Your task to perform on an android device: turn on priority inbox in the gmail app Image 0: 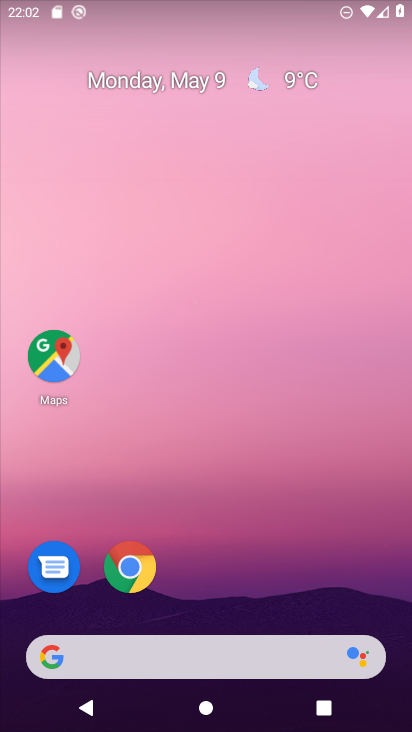
Step 0: drag from (257, 538) to (223, 39)
Your task to perform on an android device: turn on priority inbox in the gmail app Image 1: 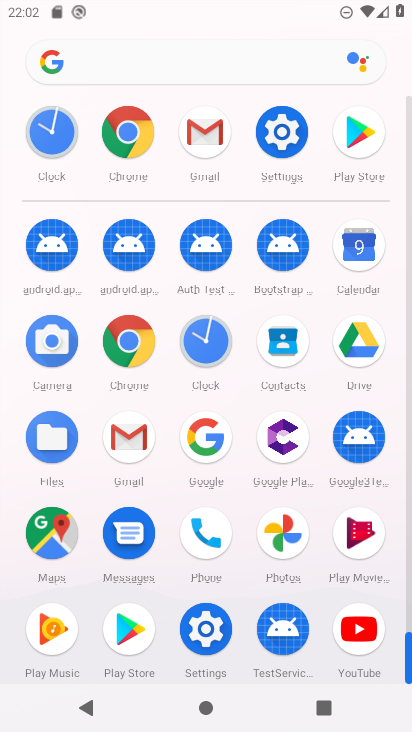
Step 1: click (216, 138)
Your task to perform on an android device: turn on priority inbox in the gmail app Image 2: 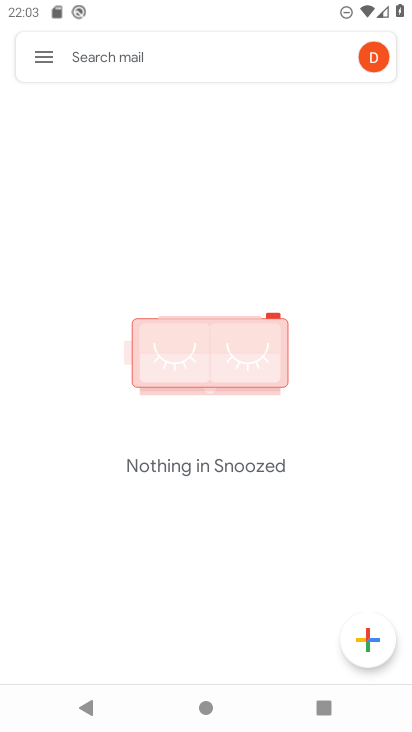
Step 2: click (39, 56)
Your task to perform on an android device: turn on priority inbox in the gmail app Image 3: 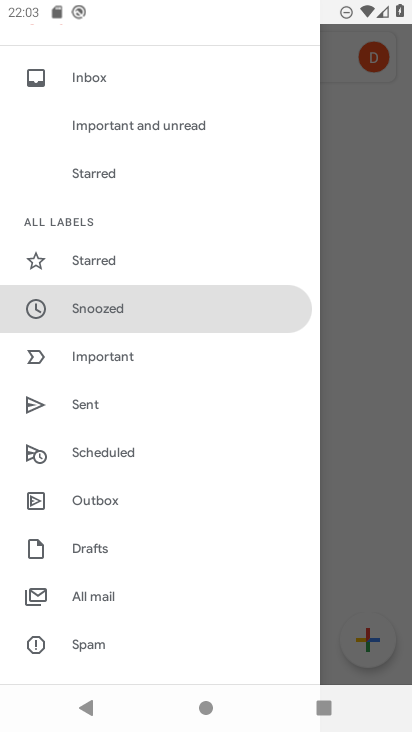
Step 3: drag from (153, 531) to (215, 85)
Your task to perform on an android device: turn on priority inbox in the gmail app Image 4: 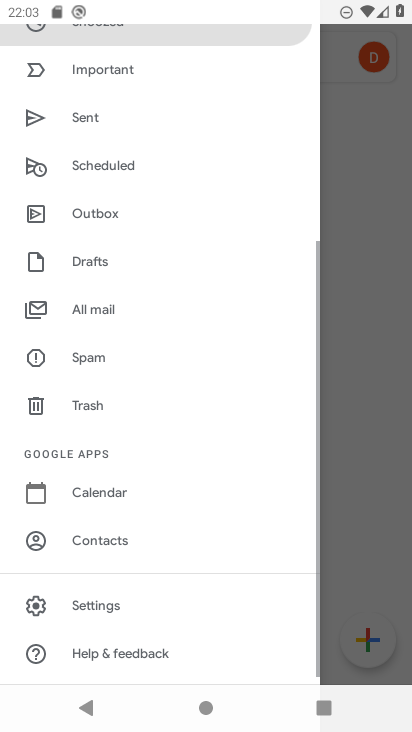
Step 4: click (103, 596)
Your task to perform on an android device: turn on priority inbox in the gmail app Image 5: 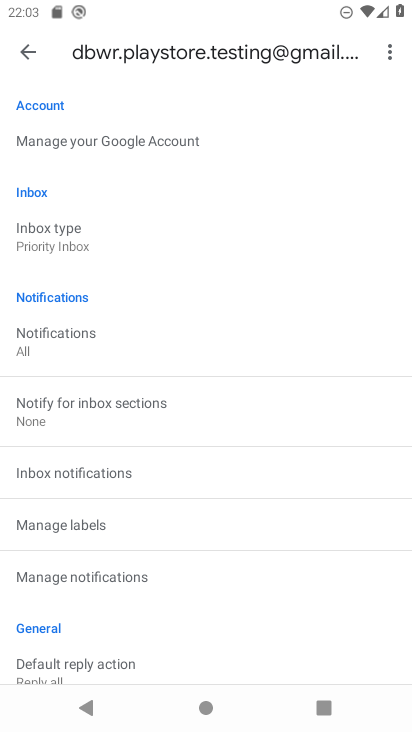
Step 5: task complete